Your task to perform on an android device: toggle location history Image 0: 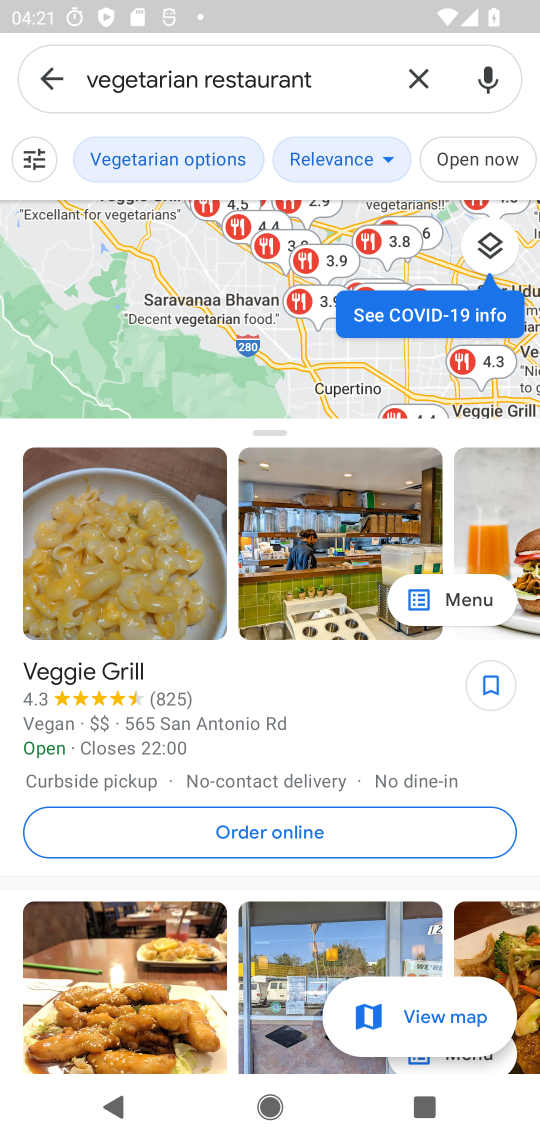
Step 0: press home button
Your task to perform on an android device: toggle location history Image 1: 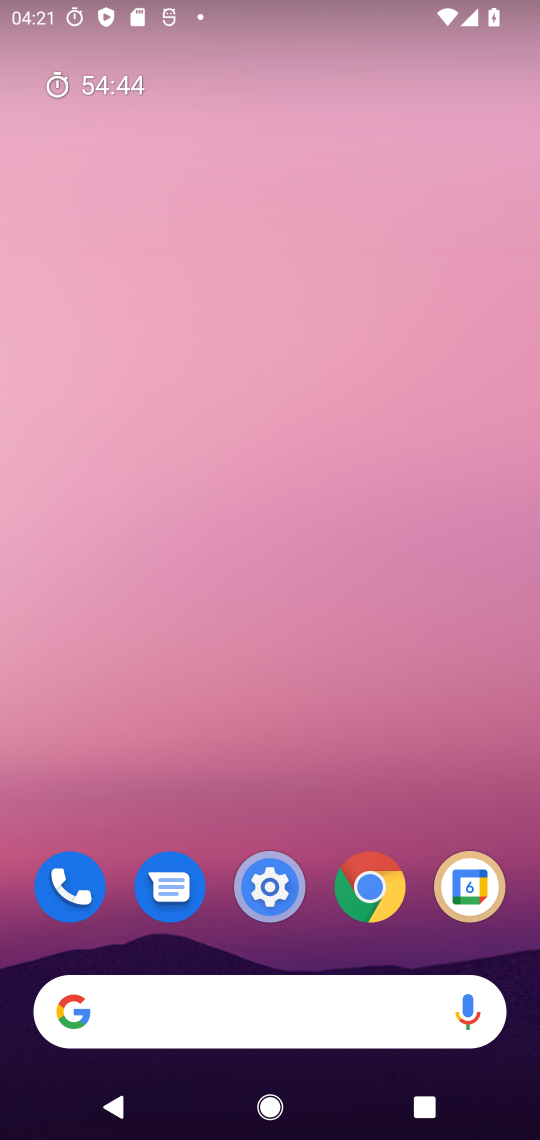
Step 1: drag from (395, 707) to (441, 186)
Your task to perform on an android device: toggle location history Image 2: 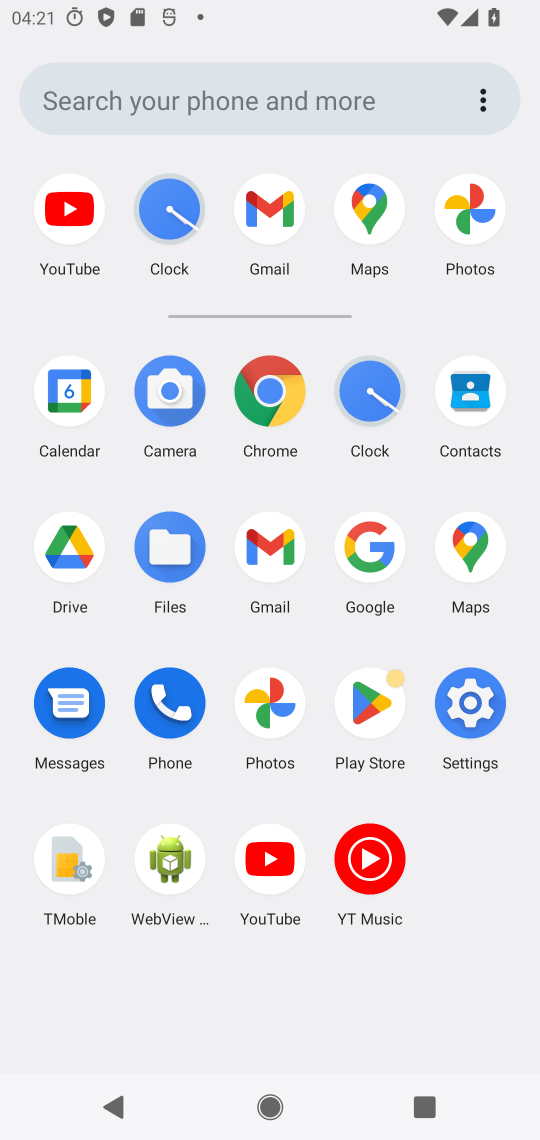
Step 2: click (467, 714)
Your task to perform on an android device: toggle location history Image 3: 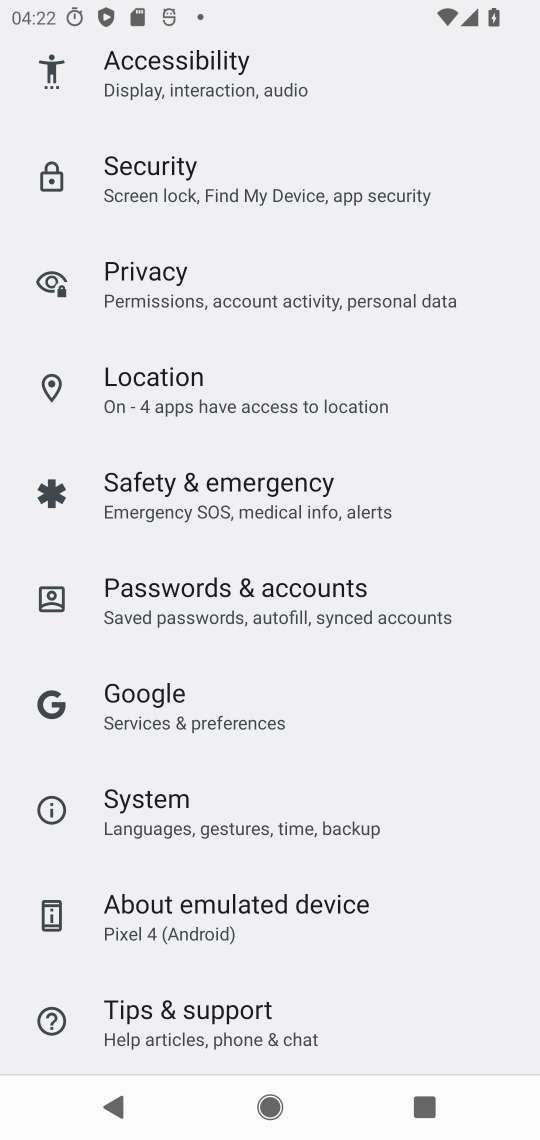
Step 3: drag from (474, 387) to (466, 536)
Your task to perform on an android device: toggle location history Image 4: 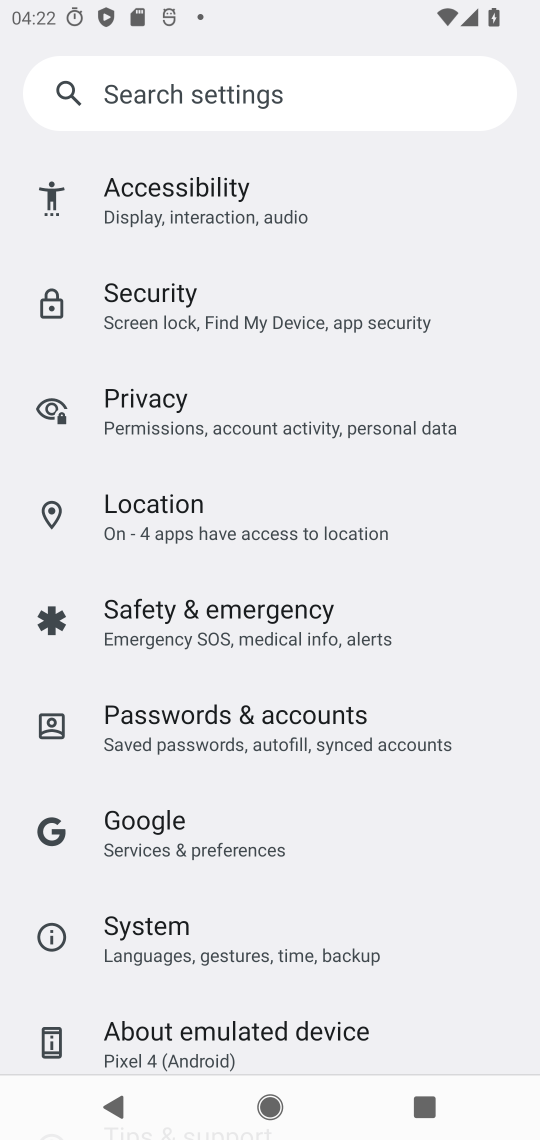
Step 4: drag from (487, 325) to (462, 567)
Your task to perform on an android device: toggle location history Image 5: 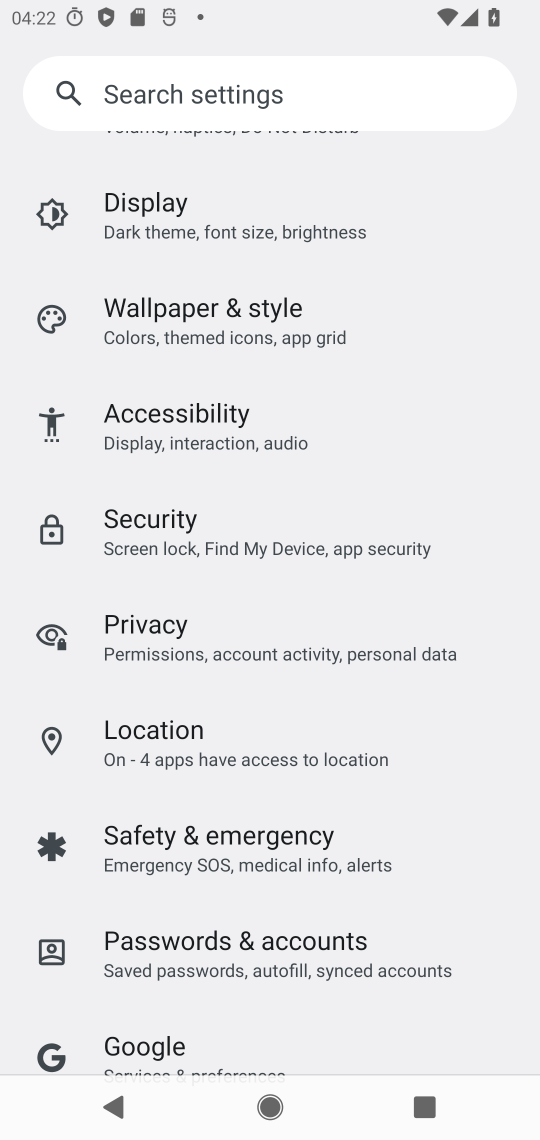
Step 5: drag from (474, 289) to (468, 517)
Your task to perform on an android device: toggle location history Image 6: 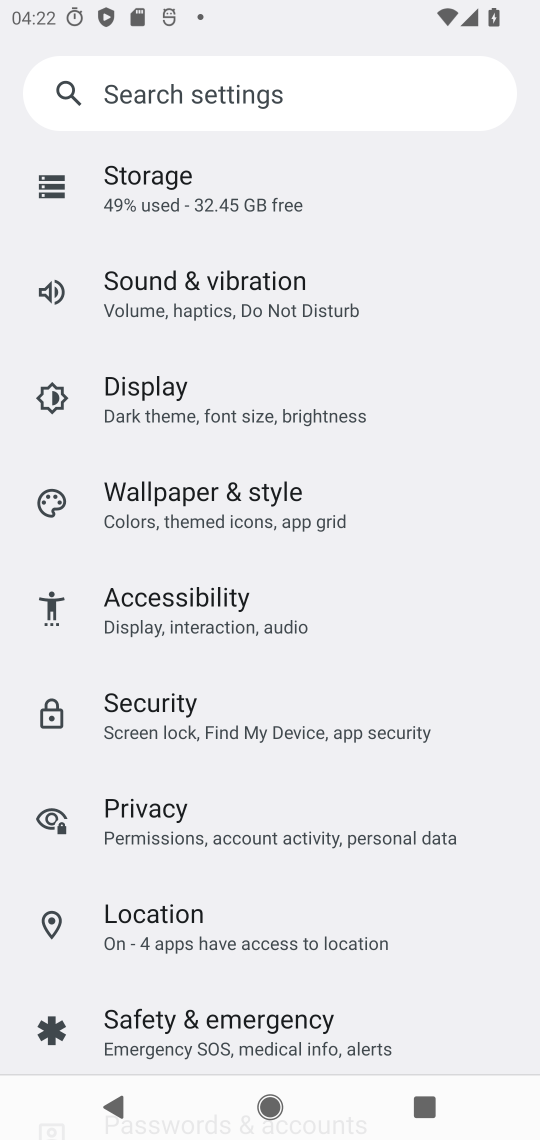
Step 6: click (416, 914)
Your task to perform on an android device: toggle location history Image 7: 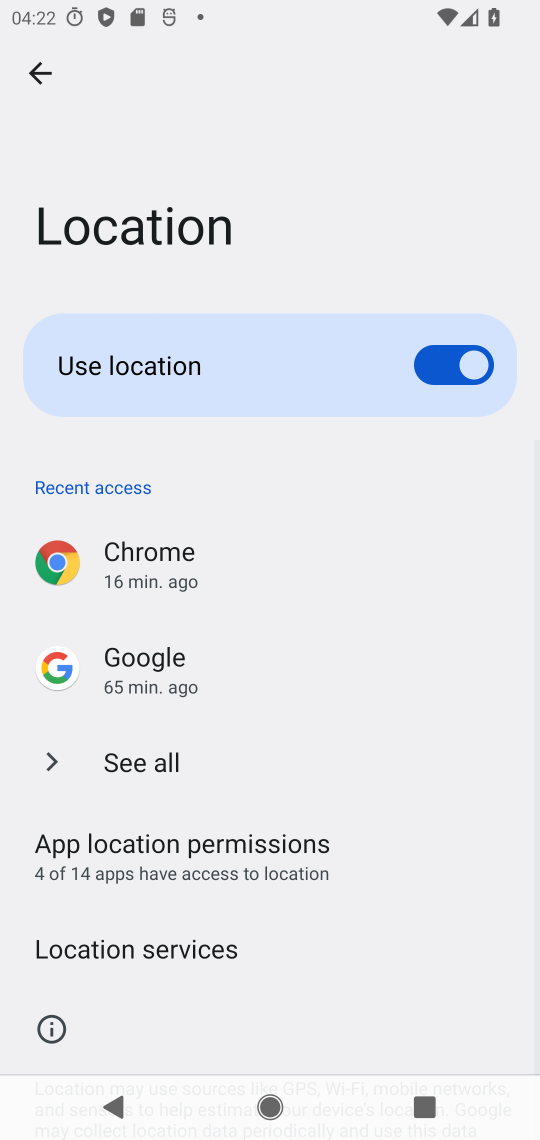
Step 7: click (353, 936)
Your task to perform on an android device: toggle location history Image 8: 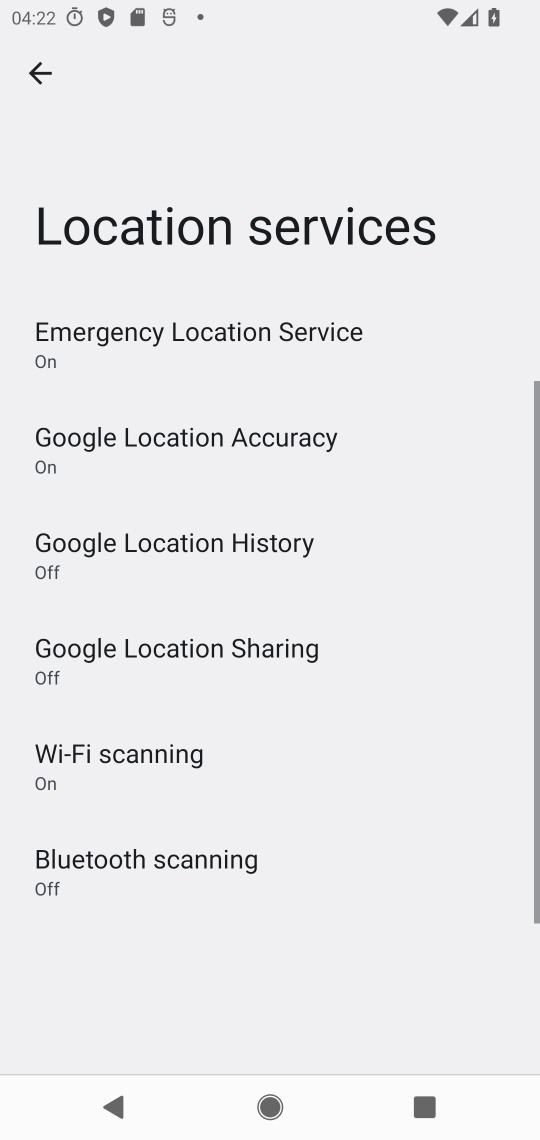
Step 8: drag from (393, 887) to (413, 691)
Your task to perform on an android device: toggle location history Image 9: 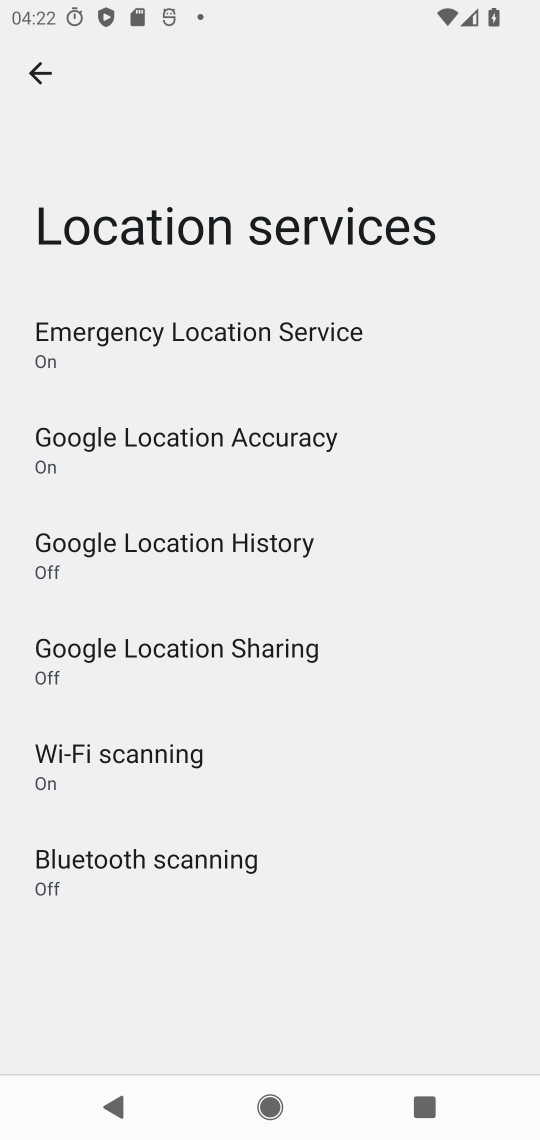
Step 9: click (298, 534)
Your task to perform on an android device: toggle location history Image 10: 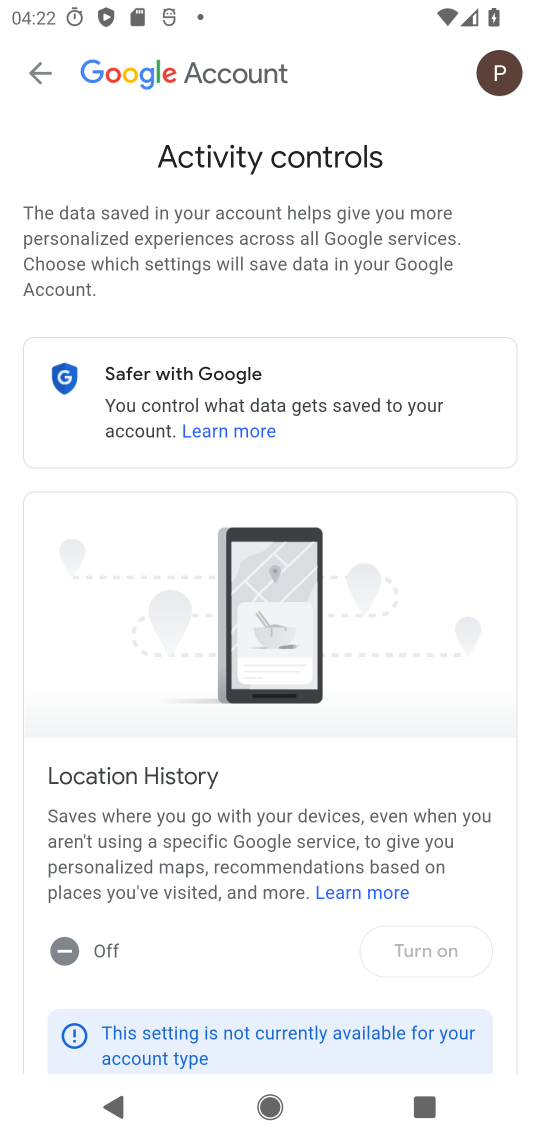
Step 10: task complete